Your task to perform on an android device: turn off airplane mode Image 0: 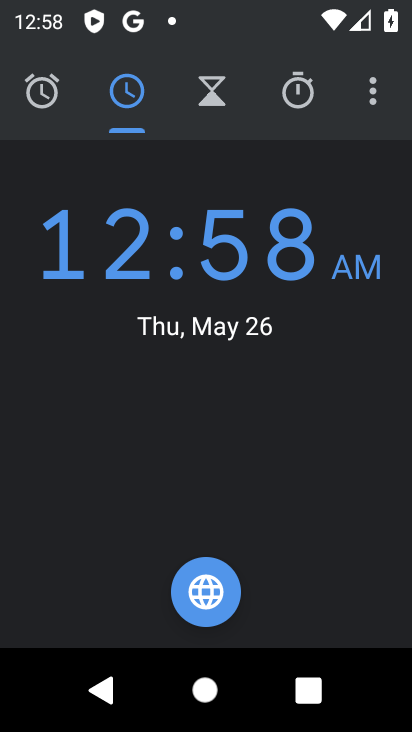
Step 0: press home button
Your task to perform on an android device: turn off airplane mode Image 1: 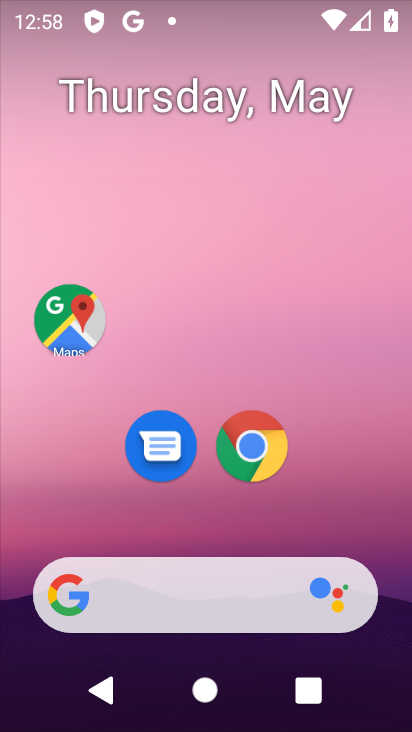
Step 1: drag from (209, 542) to (251, 41)
Your task to perform on an android device: turn off airplane mode Image 2: 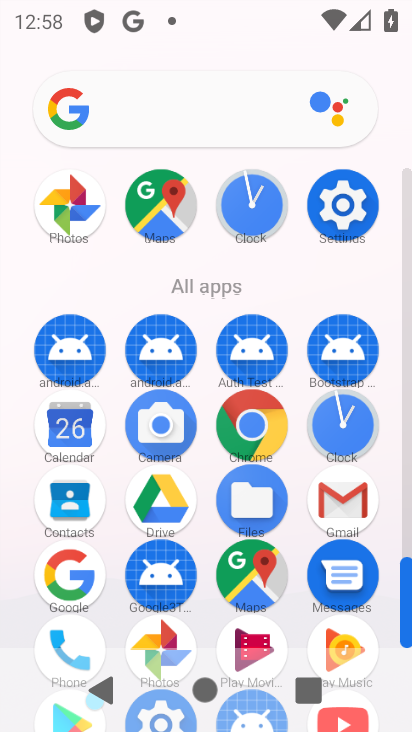
Step 2: click (327, 215)
Your task to perform on an android device: turn off airplane mode Image 3: 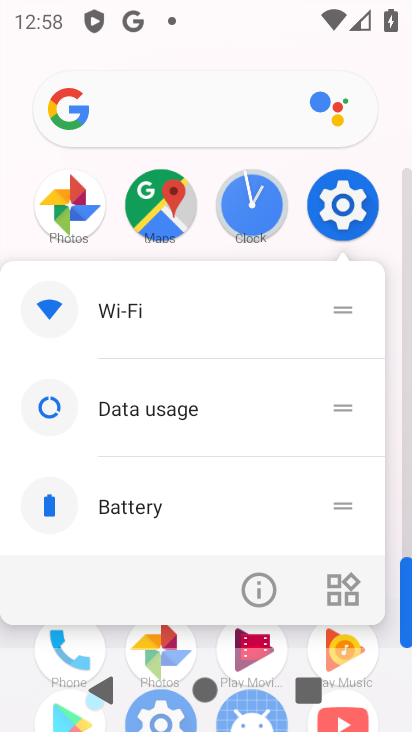
Step 3: click (332, 219)
Your task to perform on an android device: turn off airplane mode Image 4: 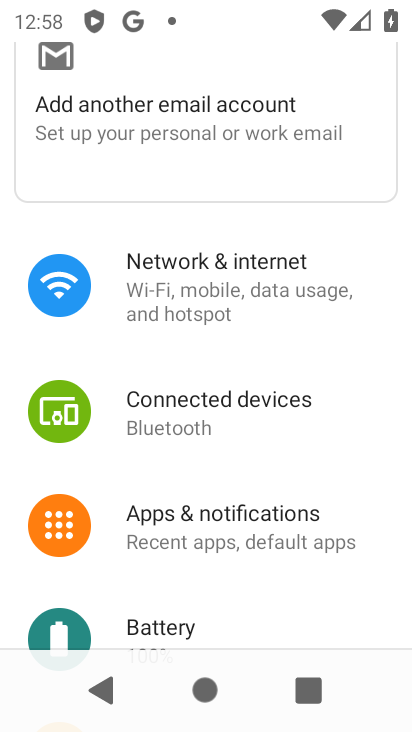
Step 4: click (225, 304)
Your task to perform on an android device: turn off airplane mode Image 5: 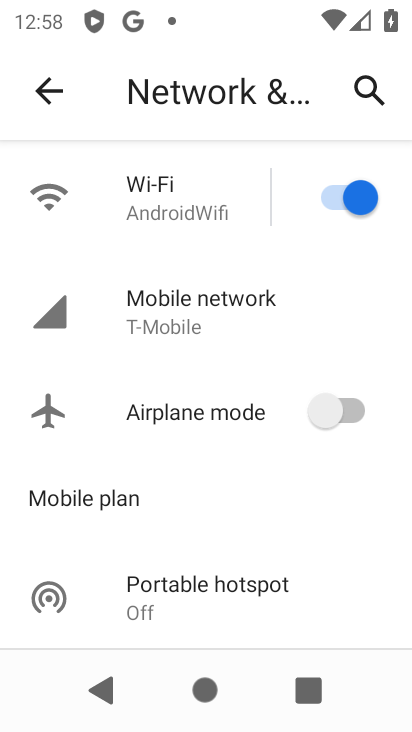
Step 5: task complete